Your task to perform on an android device: Open notification settings Image 0: 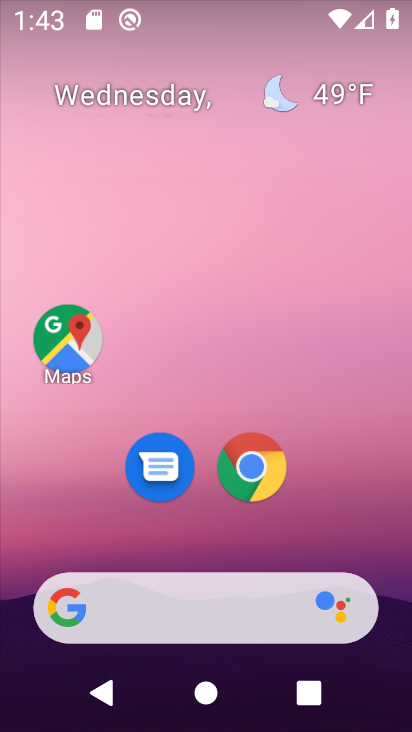
Step 0: drag from (380, 558) to (293, 1)
Your task to perform on an android device: Open notification settings Image 1: 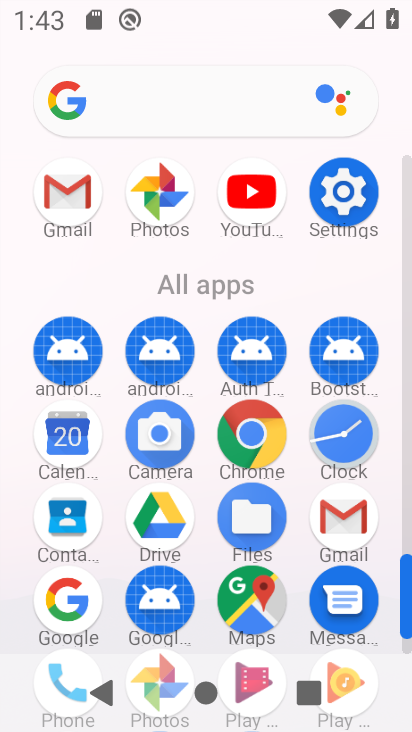
Step 1: click (403, 642)
Your task to perform on an android device: Open notification settings Image 2: 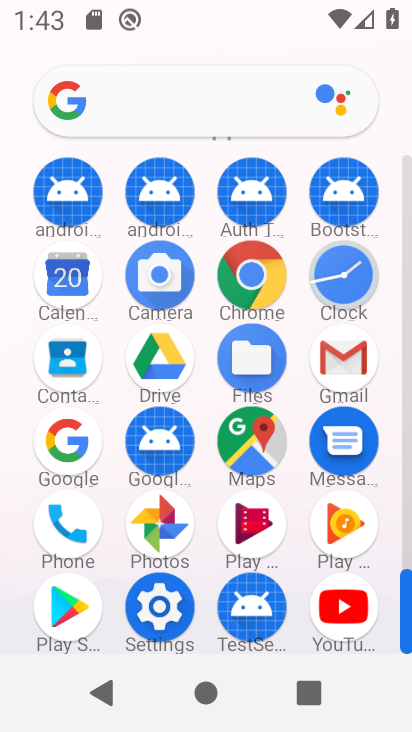
Step 2: click (159, 606)
Your task to perform on an android device: Open notification settings Image 3: 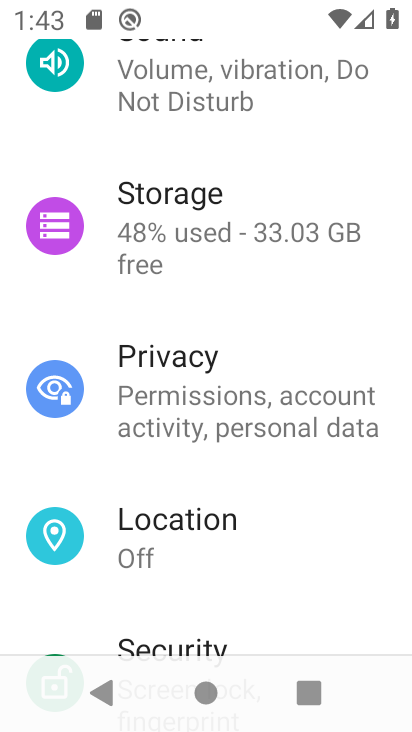
Step 3: drag from (278, 319) to (272, 573)
Your task to perform on an android device: Open notification settings Image 4: 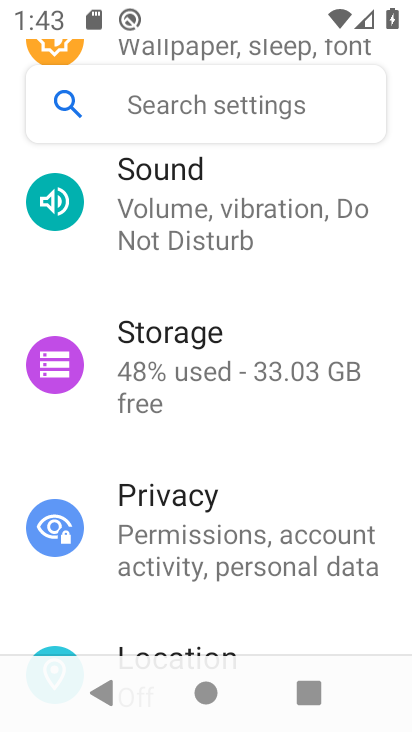
Step 4: drag from (264, 308) to (242, 547)
Your task to perform on an android device: Open notification settings Image 5: 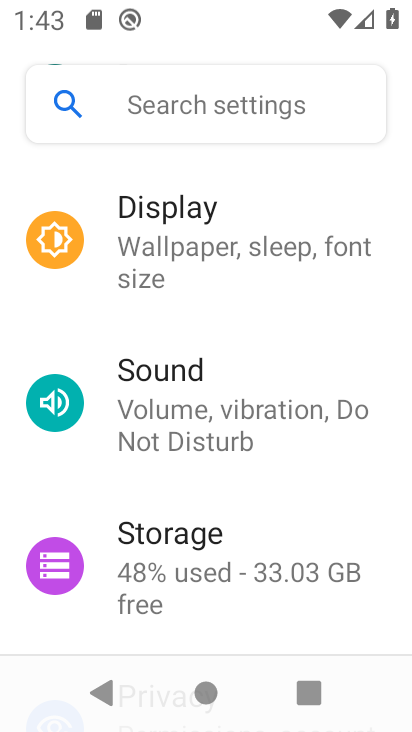
Step 5: drag from (293, 327) to (256, 576)
Your task to perform on an android device: Open notification settings Image 6: 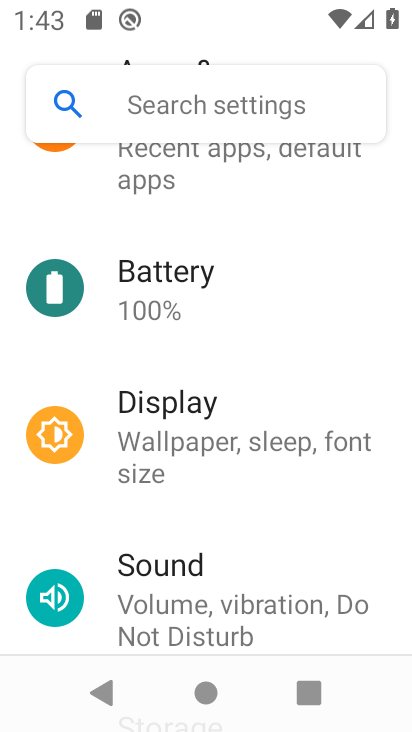
Step 6: drag from (302, 328) to (279, 554)
Your task to perform on an android device: Open notification settings Image 7: 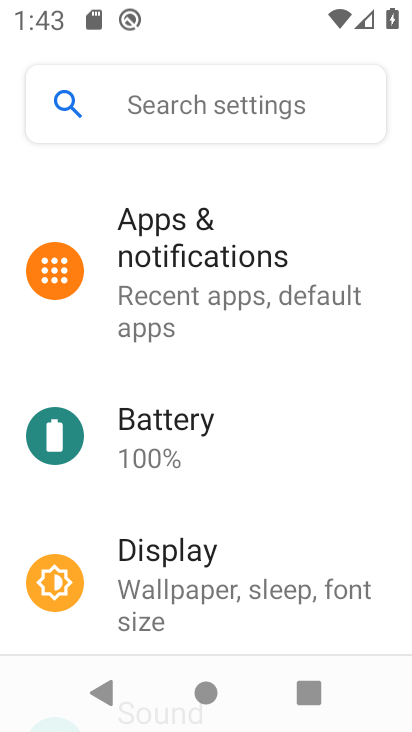
Step 7: click (140, 231)
Your task to perform on an android device: Open notification settings Image 8: 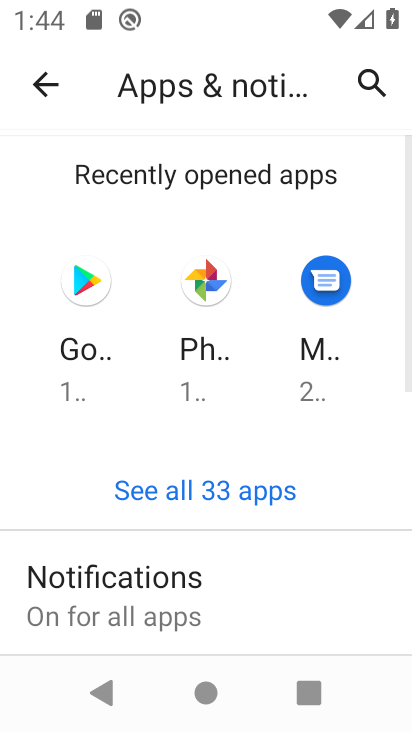
Step 8: drag from (301, 570) to (313, 328)
Your task to perform on an android device: Open notification settings Image 9: 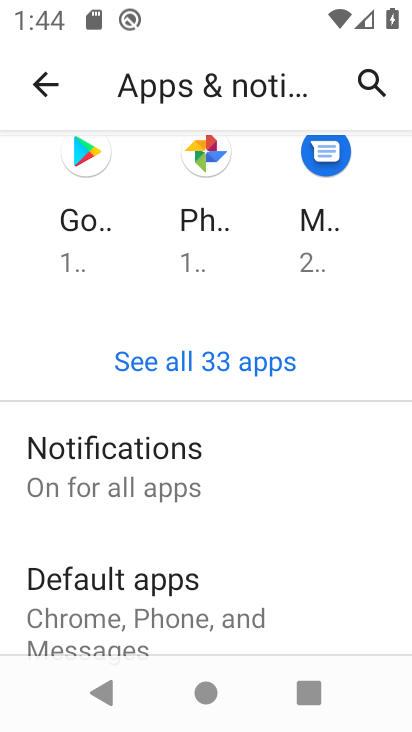
Step 9: click (116, 464)
Your task to perform on an android device: Open notification settings Image 10: 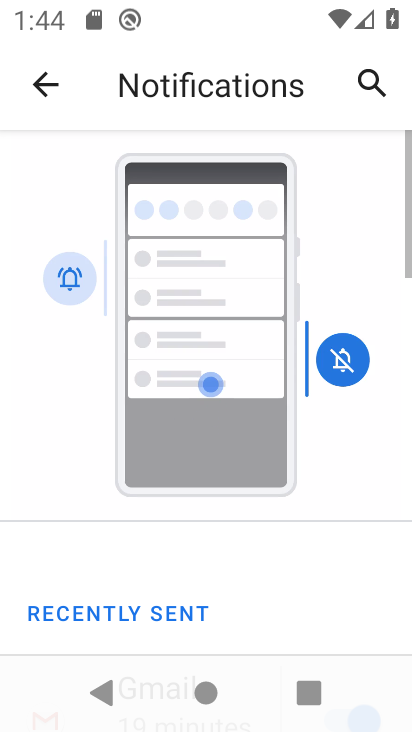
Step 10: task complete